Your task to perform on an android device: Add macbook air to the cart on ebay.com Image 0: 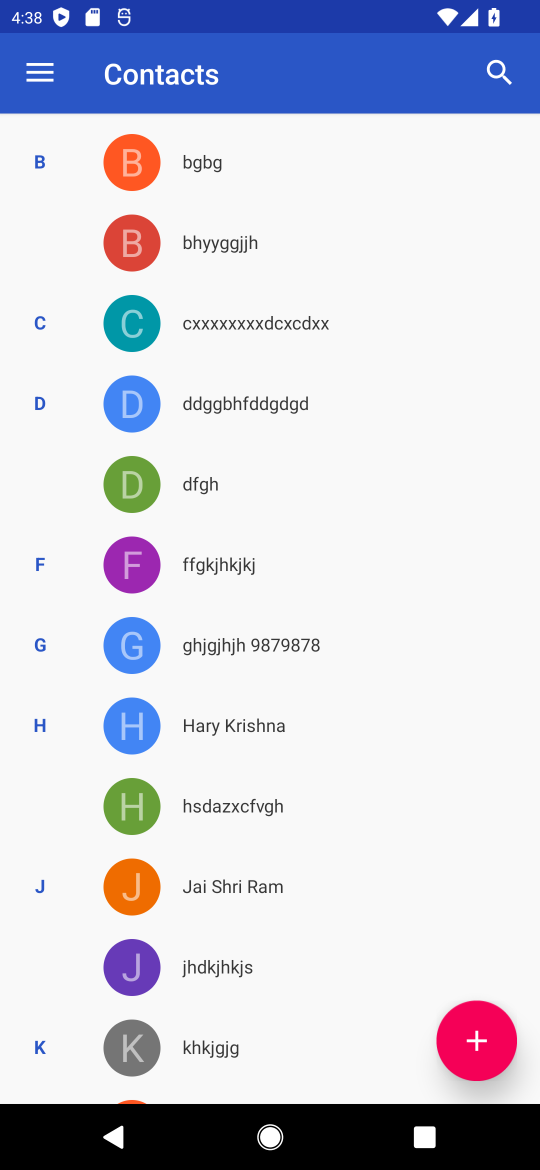
Step 0: press home button
Your task to perform on an android device: Add macbook air to the cart on ebay.com Image 1: 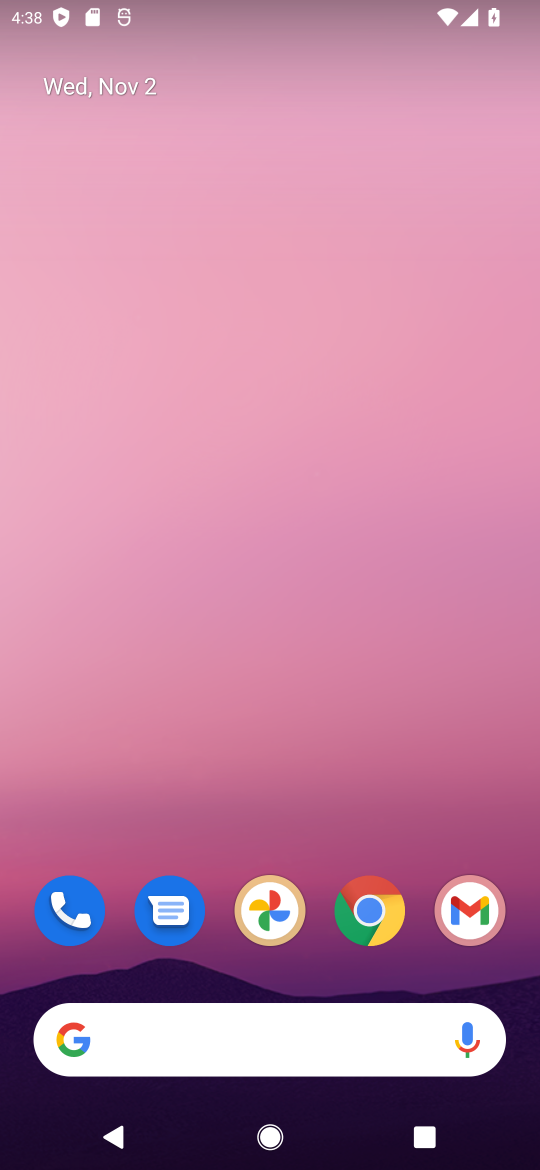
Step 1: click (374, 925)
Your task to perform on an android device: Add macbook air to the cart on ebay.com Image 2: 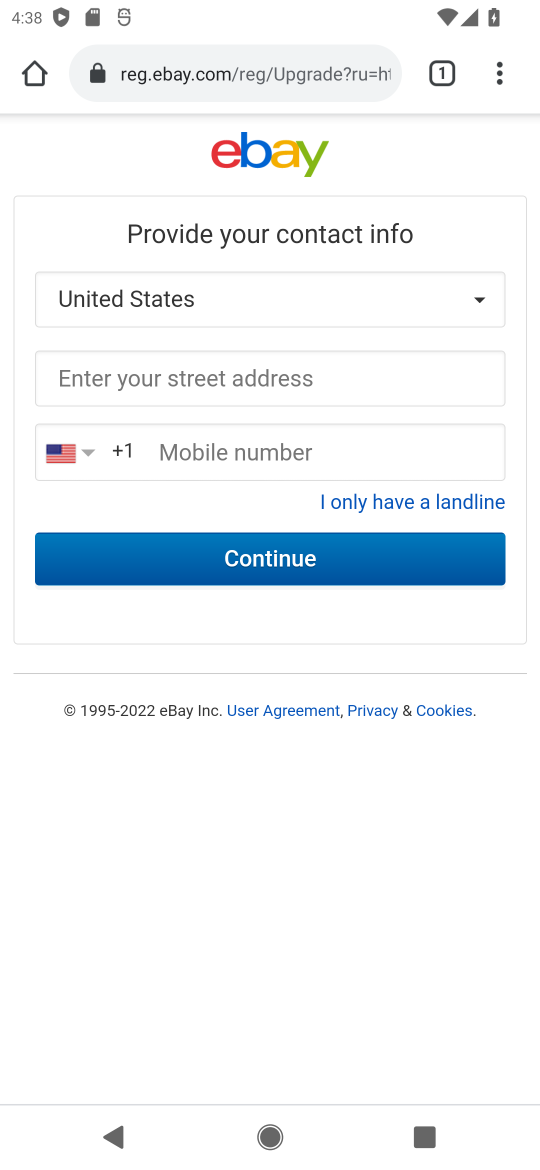
Step 2: click (142, 70)
Your task to perform on an android device: Add macbook air to the cart on ebay.com Image 3: 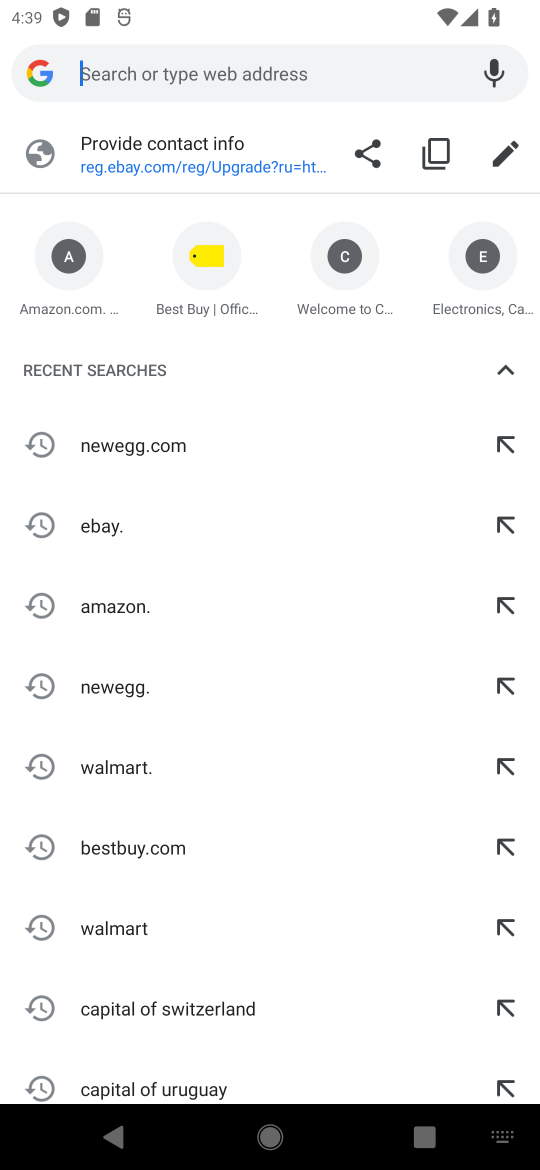
Step 3: type "ebay.com"
Your task to perform on an android device: Add macbook air to the cart on ebay.com Image 4: 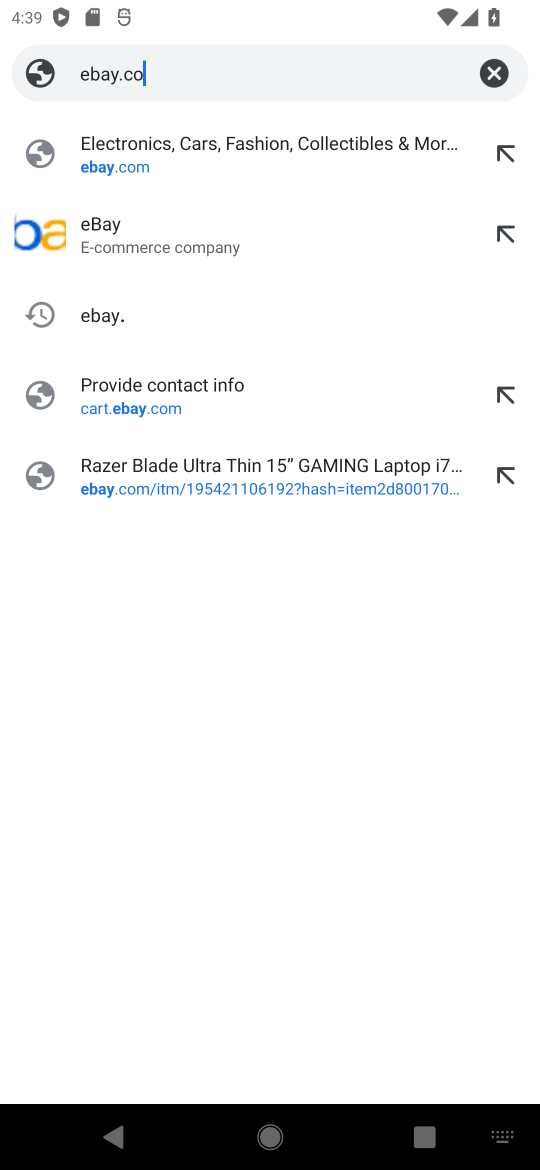
Step 4: type ""
Your task to perform on an android device: Add macbook air to the cart on ebay.com Image 5: 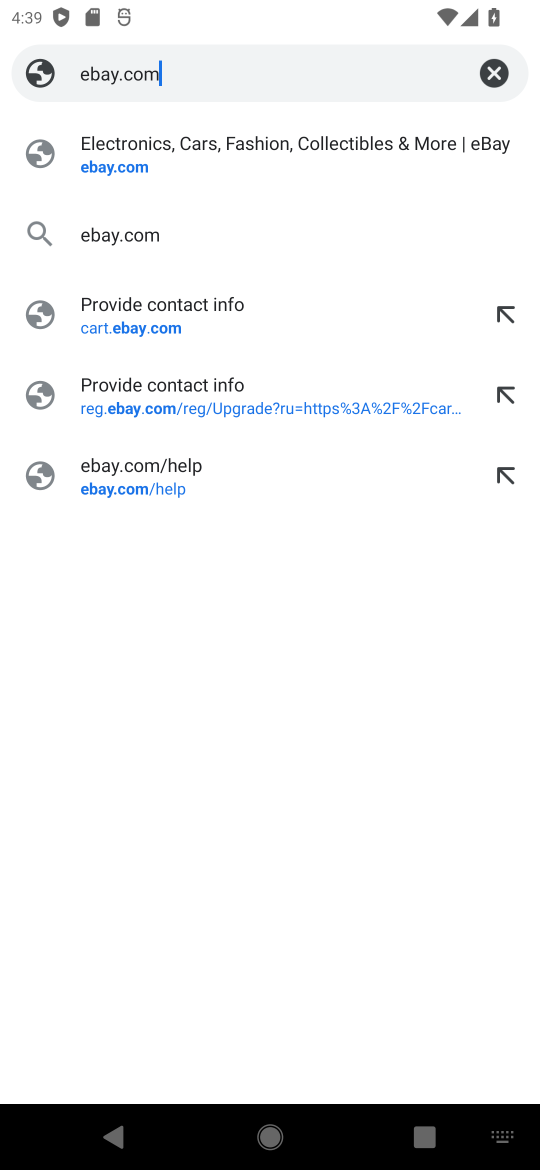
Step 5: click (278, 182)
Your task to perform on an android device: Add macbook air to the cart on ebay.com Image 6: 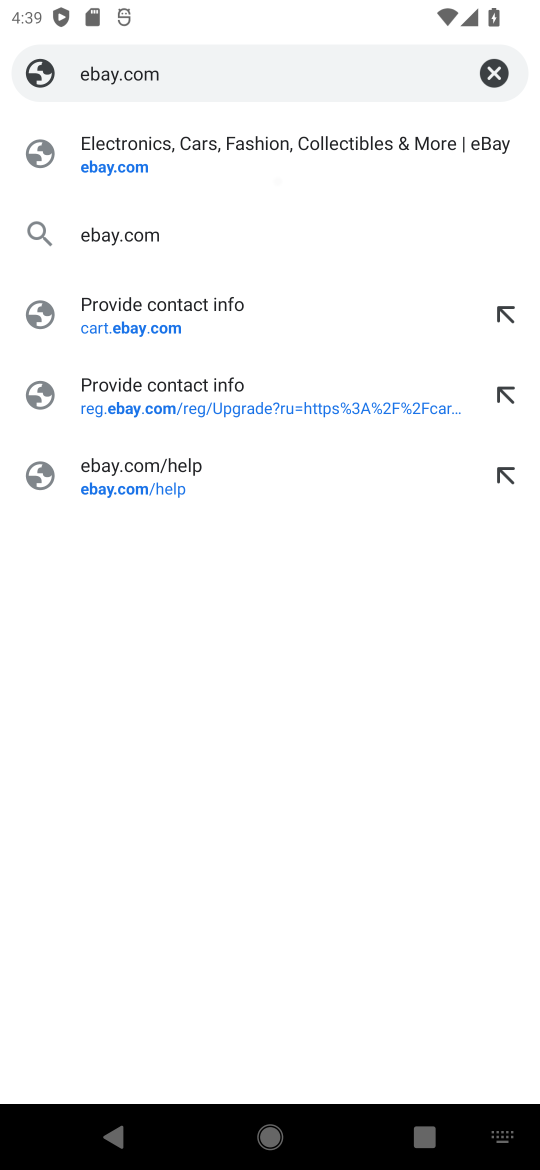
Step 6: click (281, 176)
Your task to perform on an android device: Add macbook air to the cart on ebay.com Image 7: 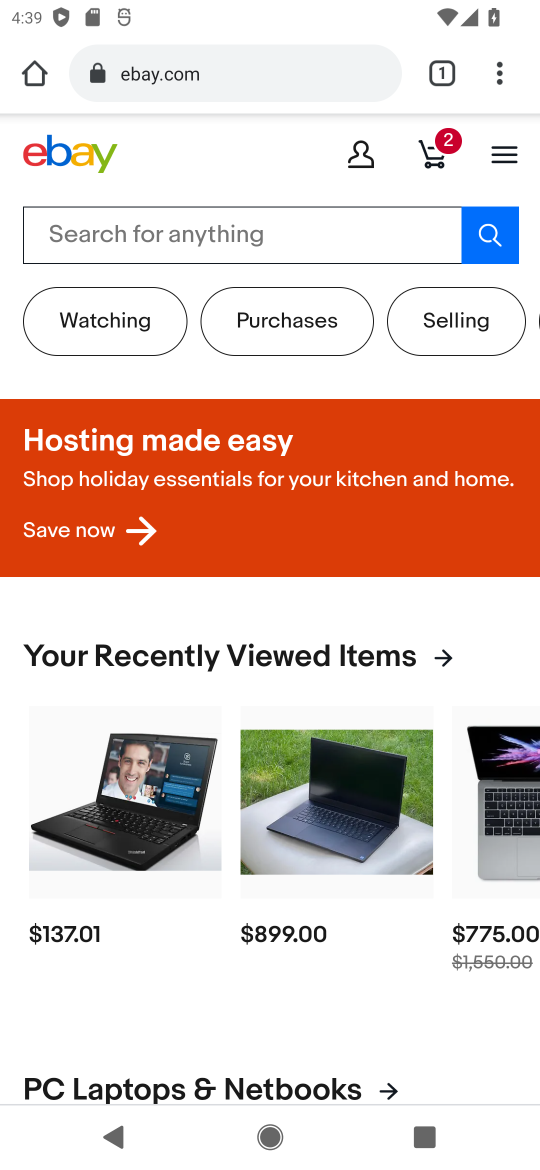
Step 7: click (236, 245)
Your task to perform on an android device: Add macbook air to the cart on ebay.com Image 8: 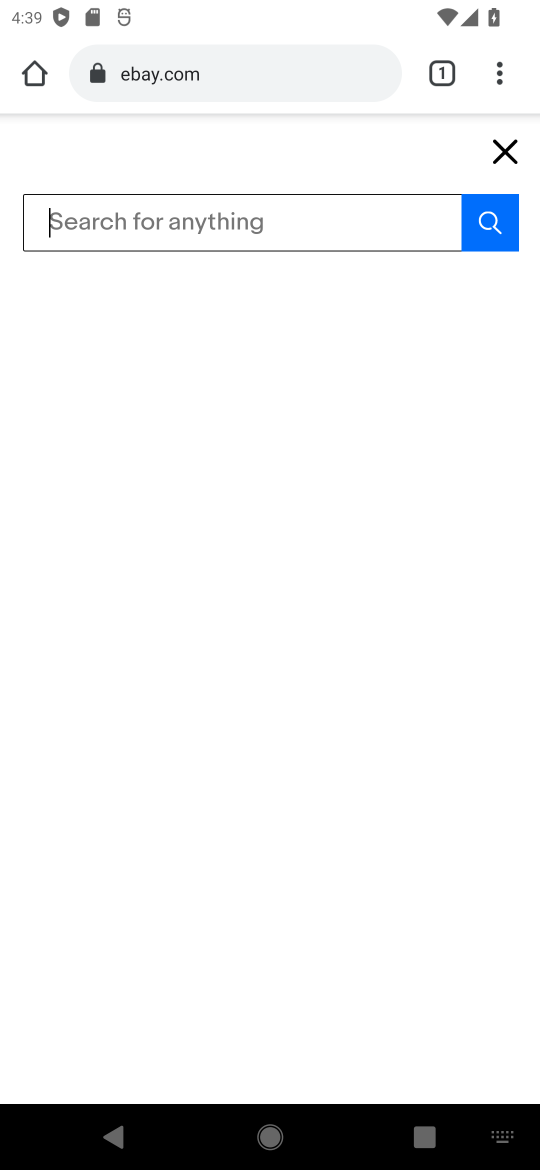
Step 8: type "macbook air"
Your task to perform on an android device: Add macbook air to the cart on ebay.com Image 9: 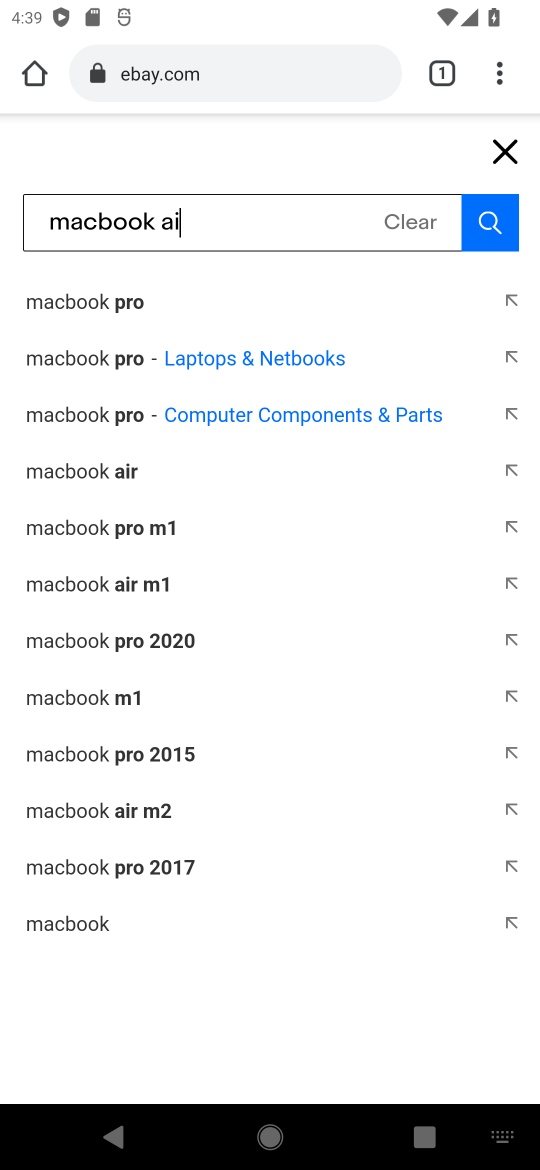
Step 9: type ""
Your task to perform on an android device: Add macbook air to the cart on ebay.com Image 10: 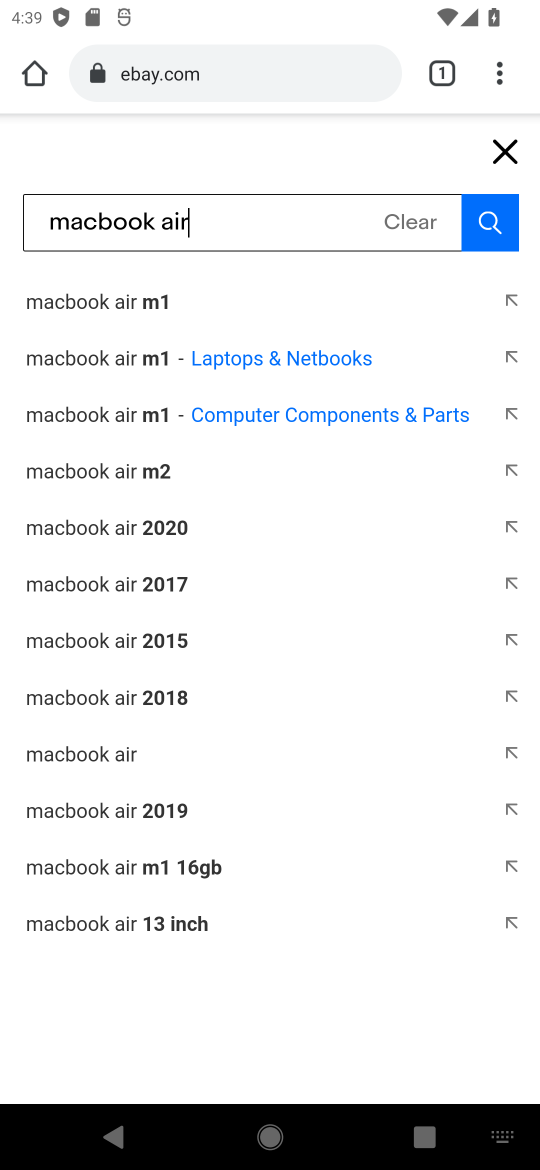
Step 10: click (505, 222)
Your task to perform on an android device: Add macbook air to the cart on ebay.com Image 11: 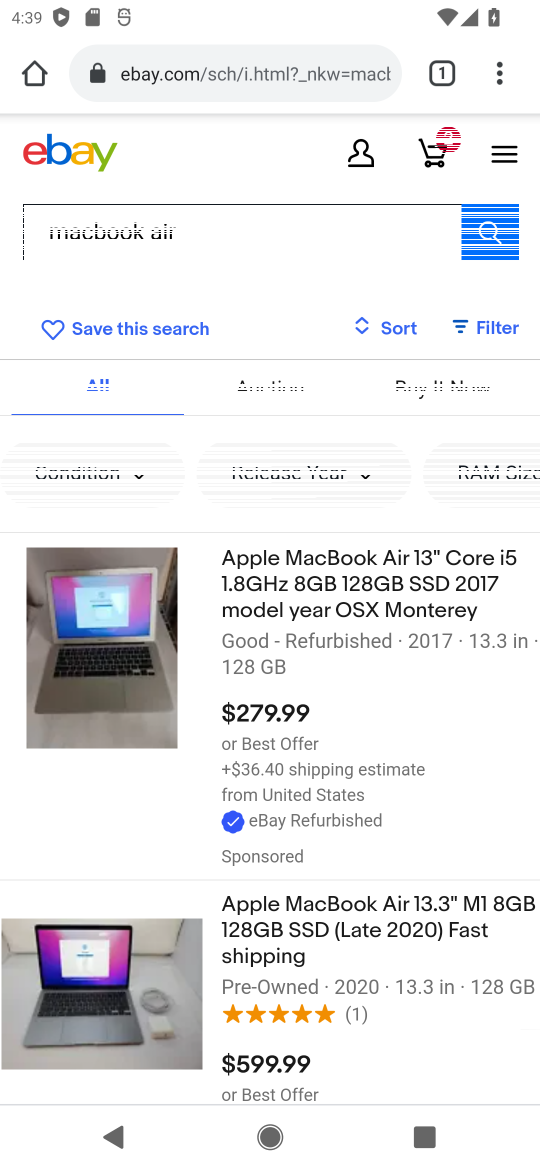
Step 11: click (432, 603)
Your task to perform on an android device: Add macbook air to the cart on ebay.com Image 12: 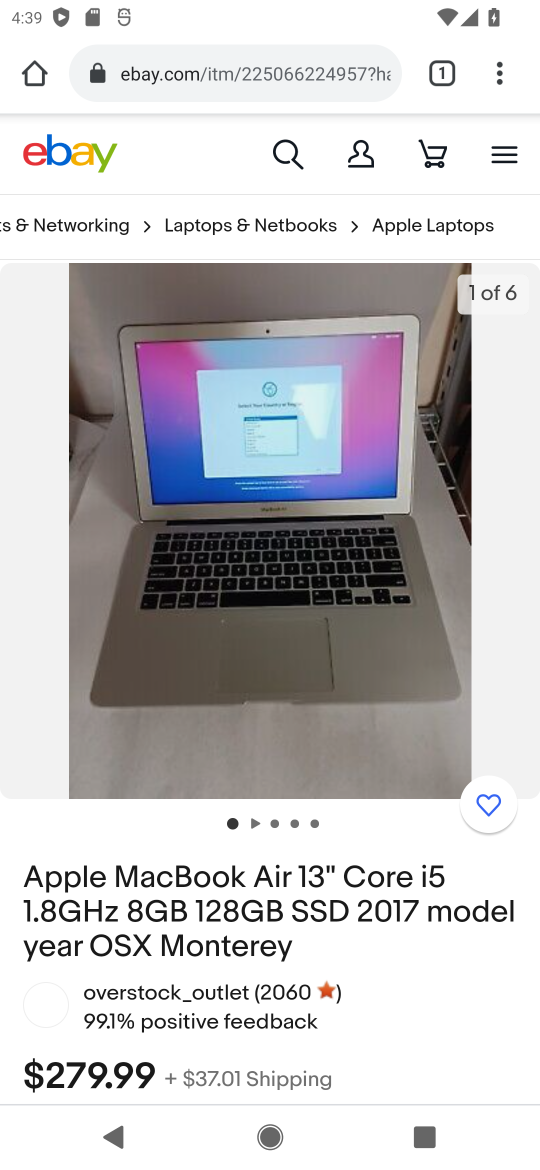
Step 12: drag from (420, 879) to (454, 352)
Your task to perform on an android device: Add macbook air to the cart on ebay.com Image 13: 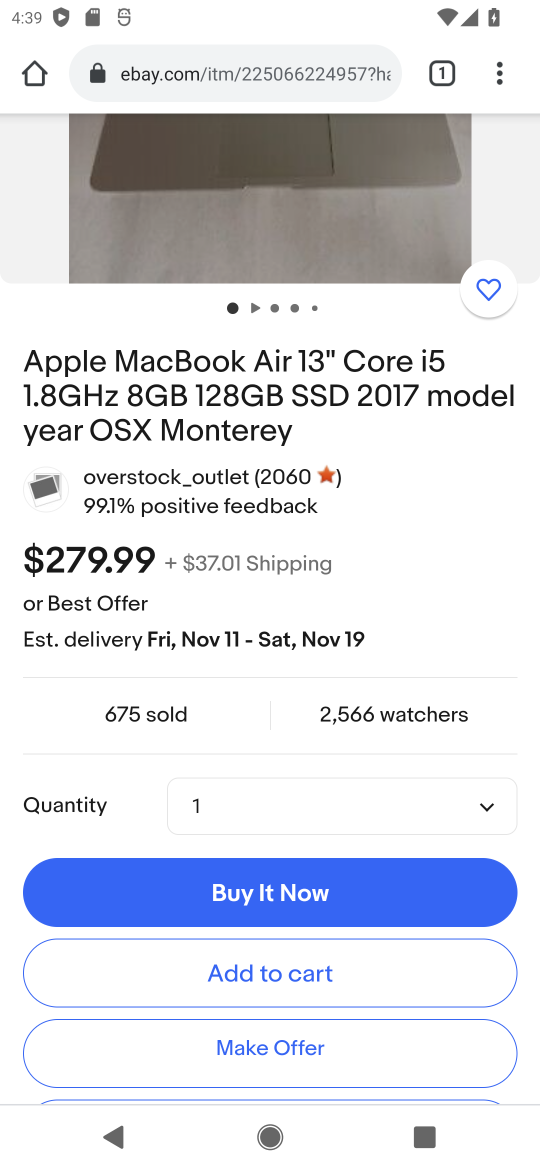
Step 13: click (290, 967)
Your task to perform on an android device: Add macbook air to the cart on ebay.com Image 14: 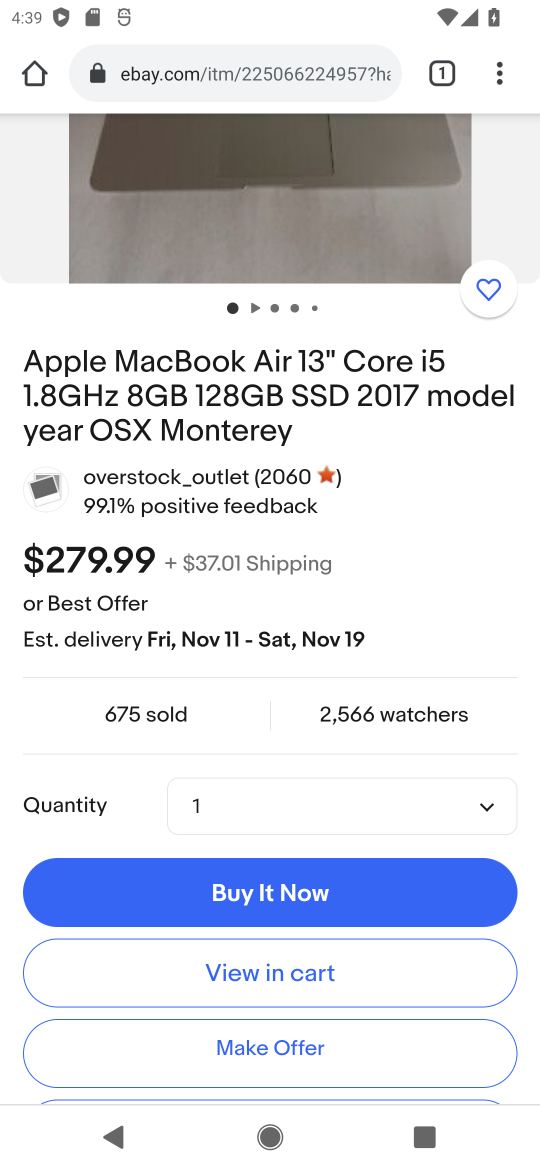
Step 14: click (306, 966)
Your task to perform on an android device: Add macbook air to the cart on ebay.com Image 15: 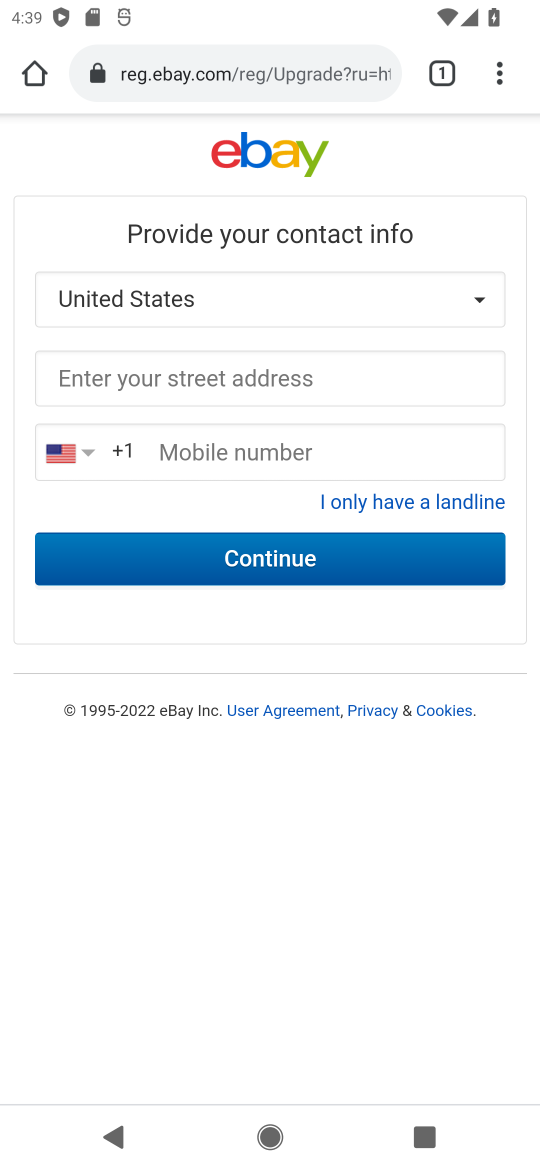
Step 15: click (410, 553)
Your task to perform on an android device: Add macbook air to the cart on ebay.com Image 16: 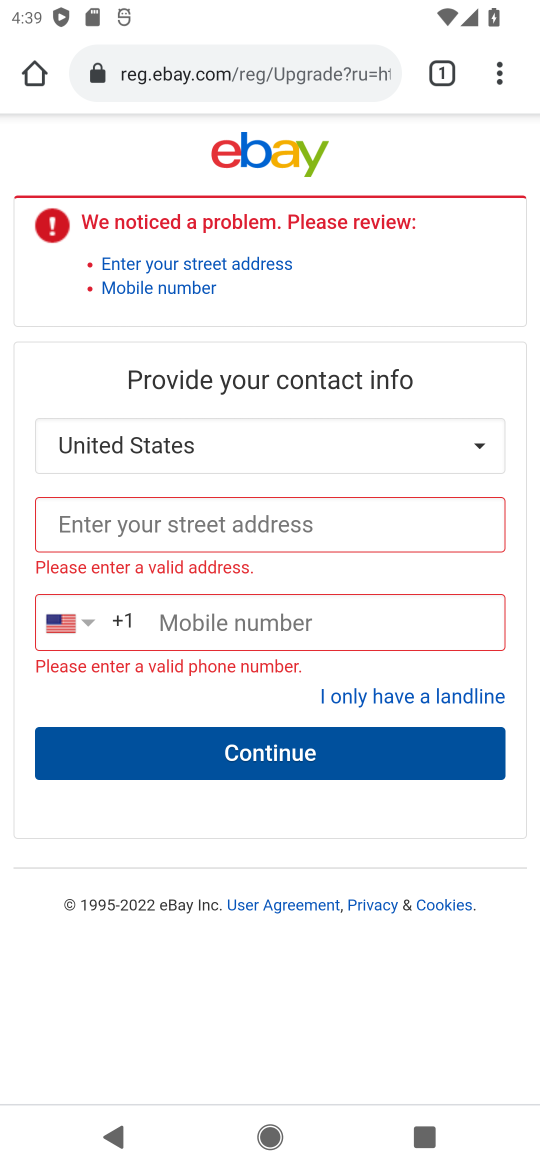
Step 16: press back button
Your task to perform on an android device: Add macbook air to the cart on ebay.com Image 17: 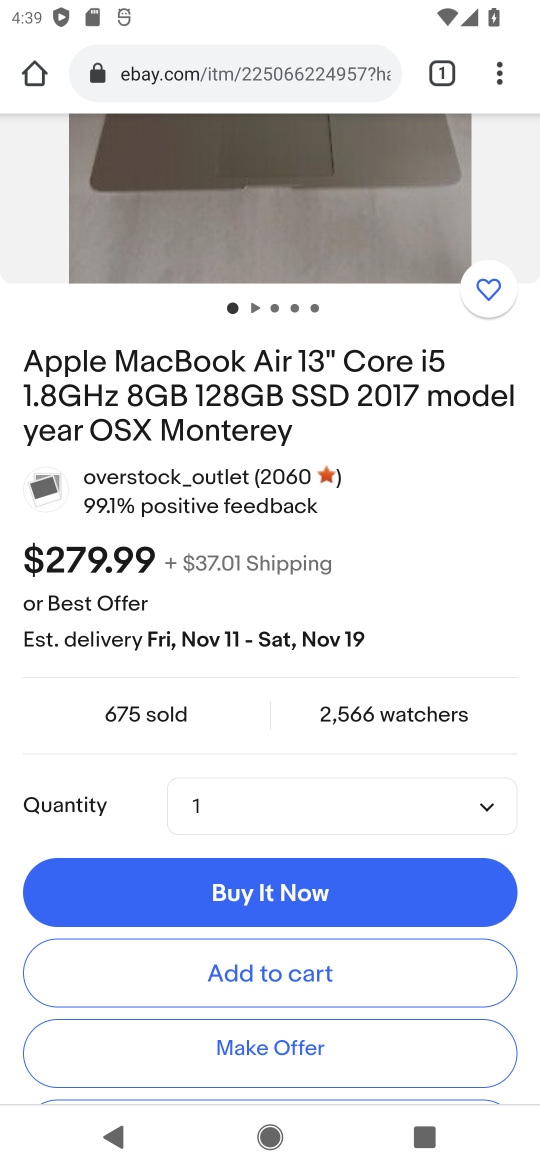
Step 17: drag from (416, 765) to (436, 252)
Your task to perform on an android device: Add macbook air to the cart on ebay.com Image 18: 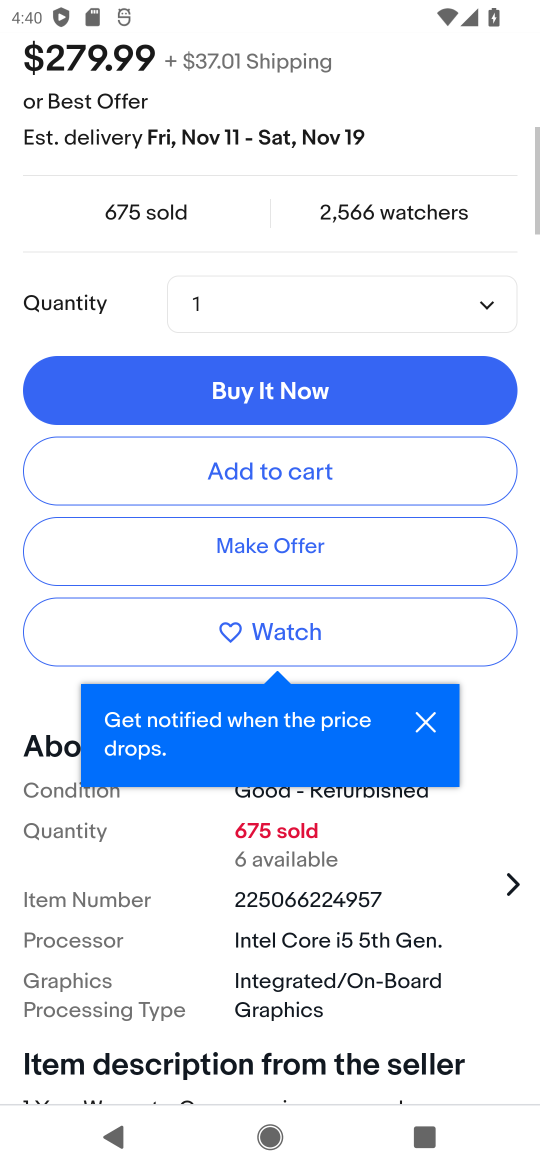
Step 18: drag from (379, 762) to (394, 281)
Your task to perform on an android device: Add macbook air to the cart on ebay.com Image 19: 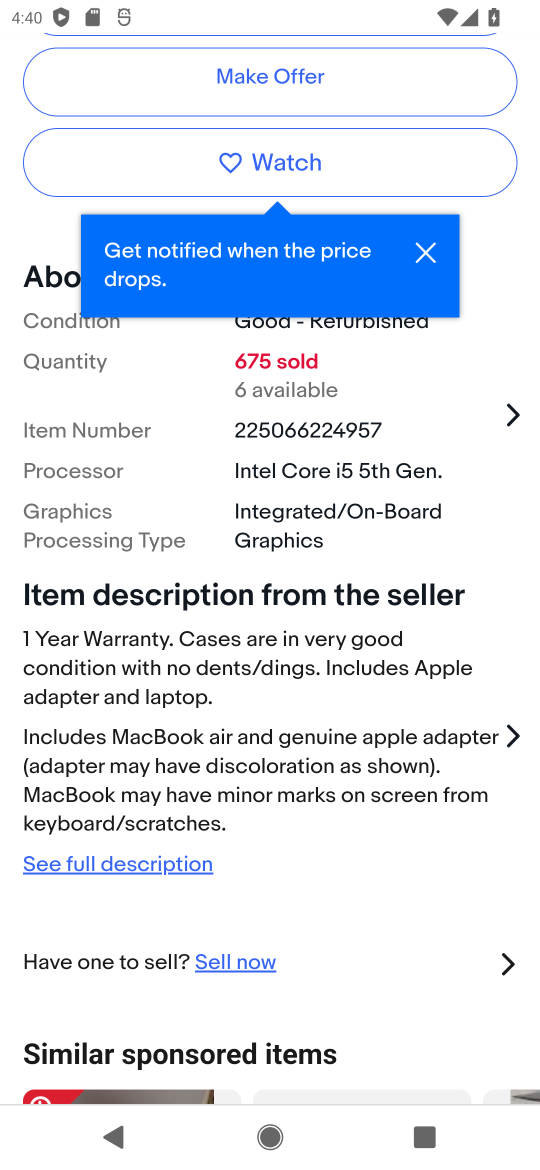
Step 19: click (434, 251)
Your task to perform on an android device: Add macbook air to the cart on ebay.com Image 20: 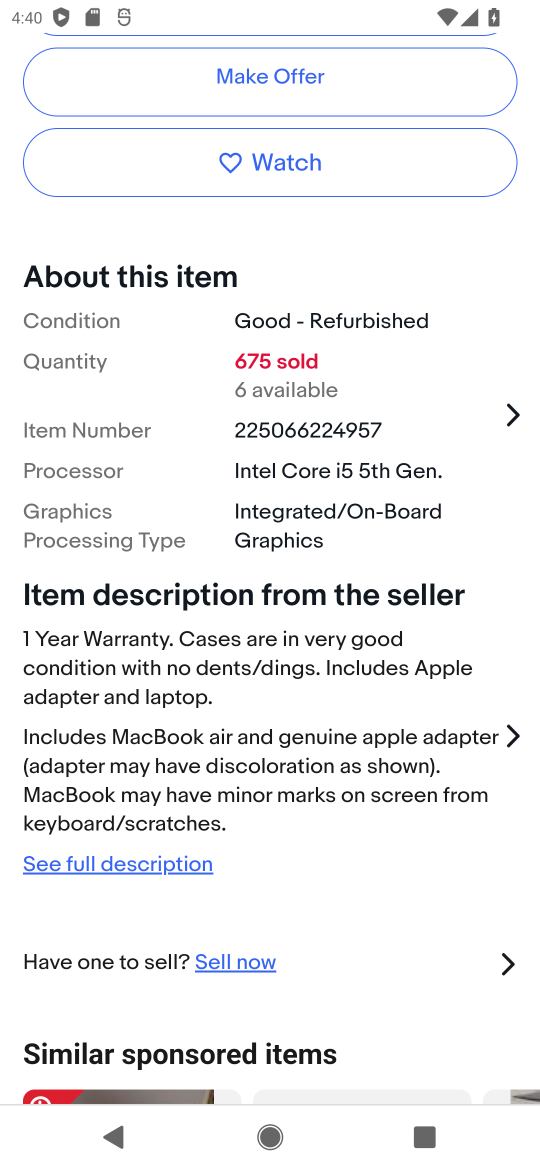
Step 20: drag from (371, 632) to (361, 166)
Your task to perform on an android device: Add macbook air to the cart on ebay.com Image 21: 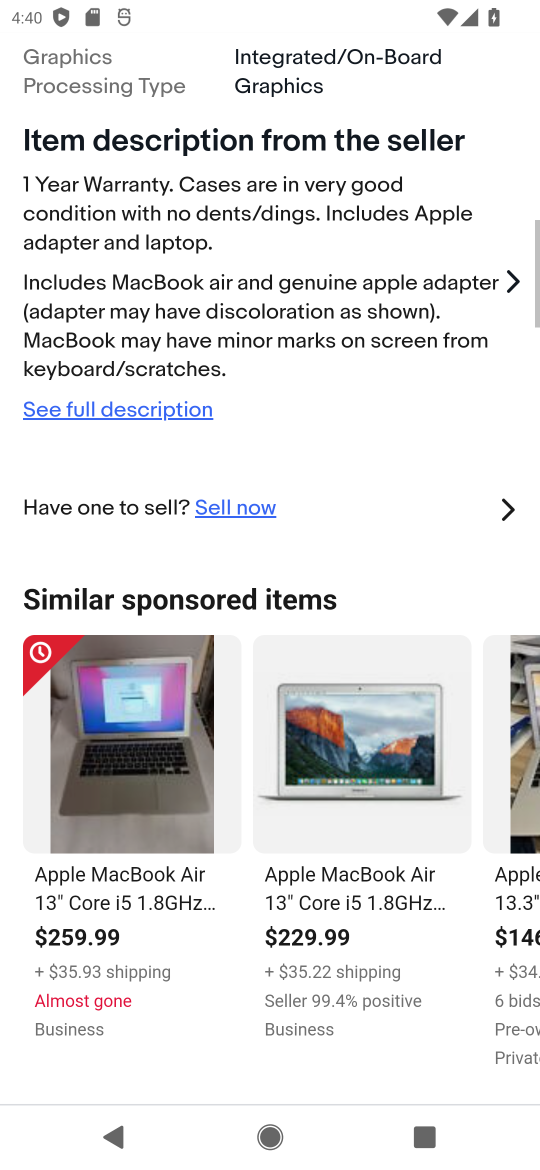
Step 21: drag from (349, 368) to (365, 176)
Your task to perform on an android device: Add macbook air to the cart on ebay.com Image 22: 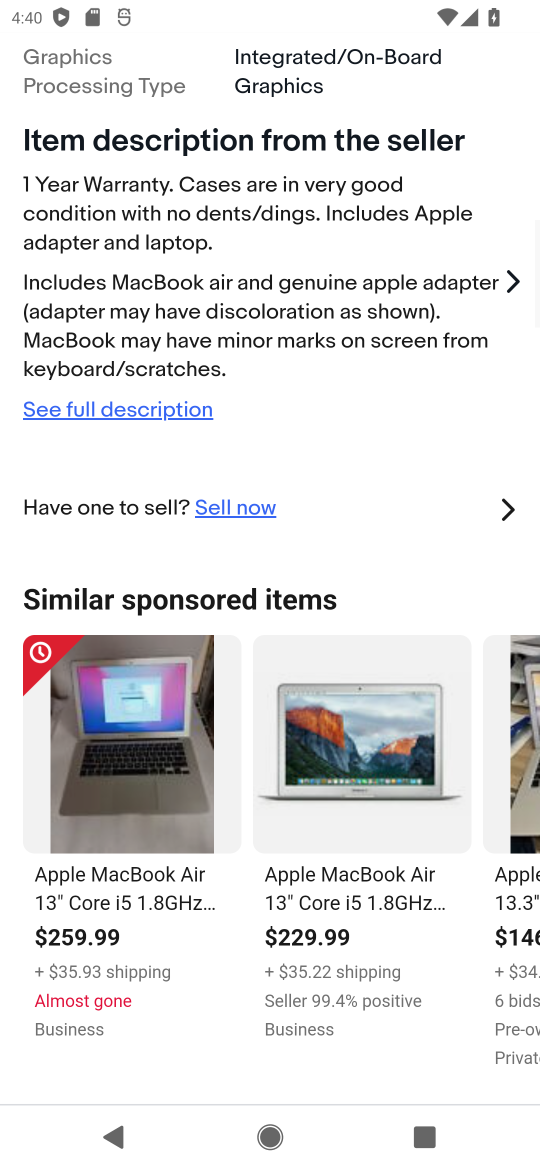
Step 22: drag from (364, 400) to (383, 204)
Your task to perform on an android device: Add macbook air to the cart on ebay.com Image 23: 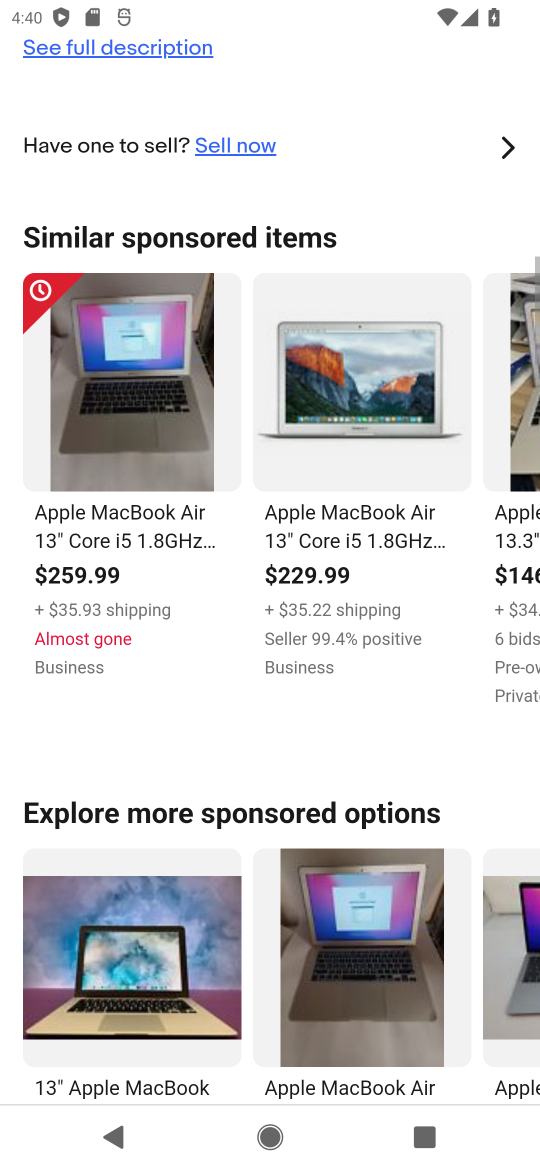
Step 23: click (381, 308)
Your task to perform on an android device: Add macbook air to the cart on ebay.com Image 24: 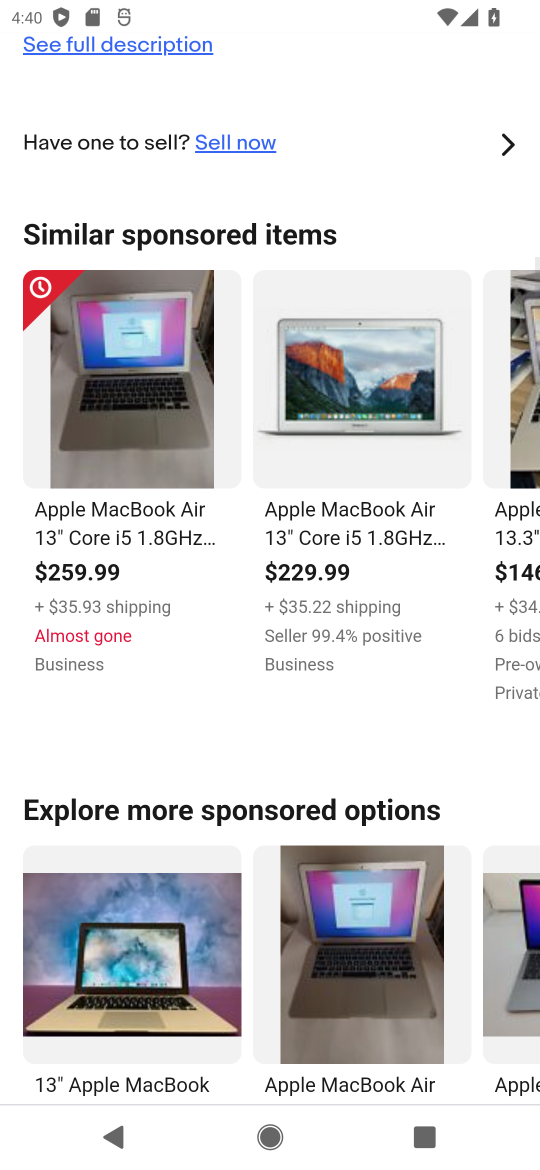
Step 24: click (363, 291)
Your task to perform on an android device: Add macbook air to the cart on ebay.com Image 25: 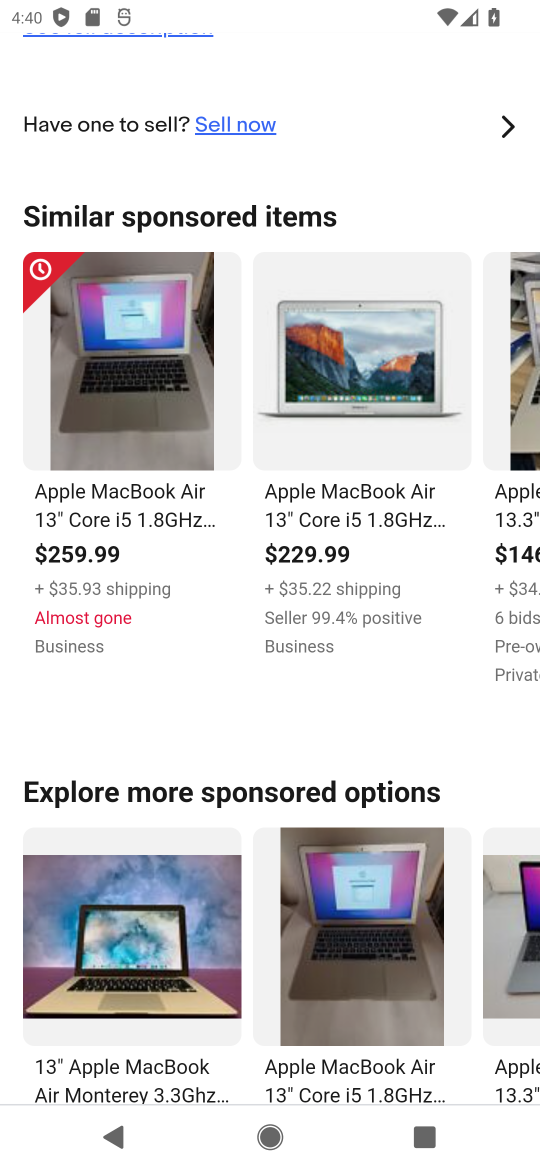
Step 25: drag from (341, 505) to (383, 285)
Your task to perform on an android device: Add macbook air to the cart on ebay.com Image 26: 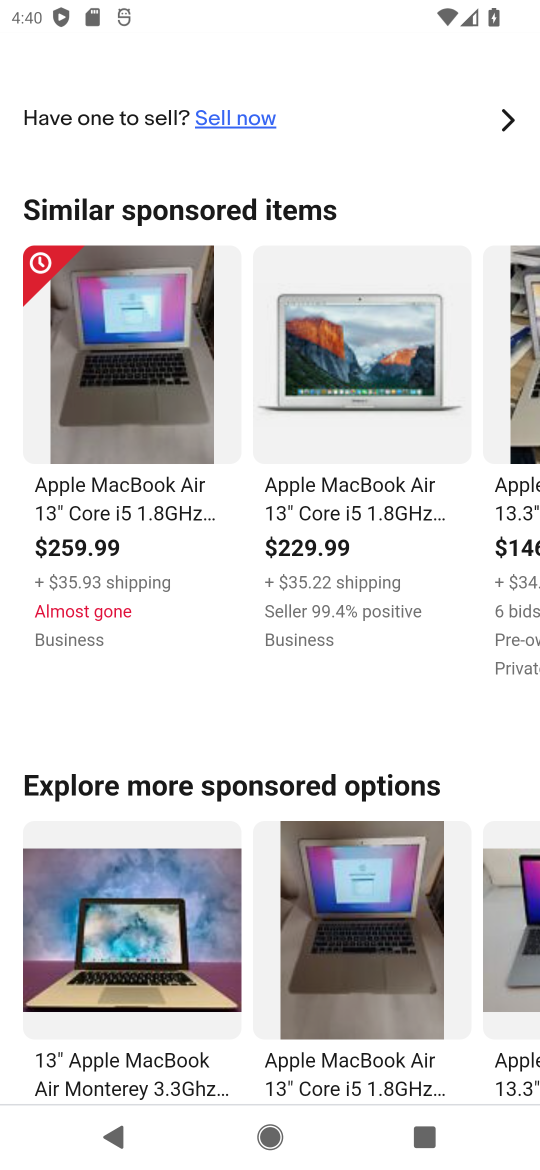
Step 26: drag from (401, 401) to (425, 335)
Your task to perform on an android device: Add macbook air to the cart on ebay.com Image 27: 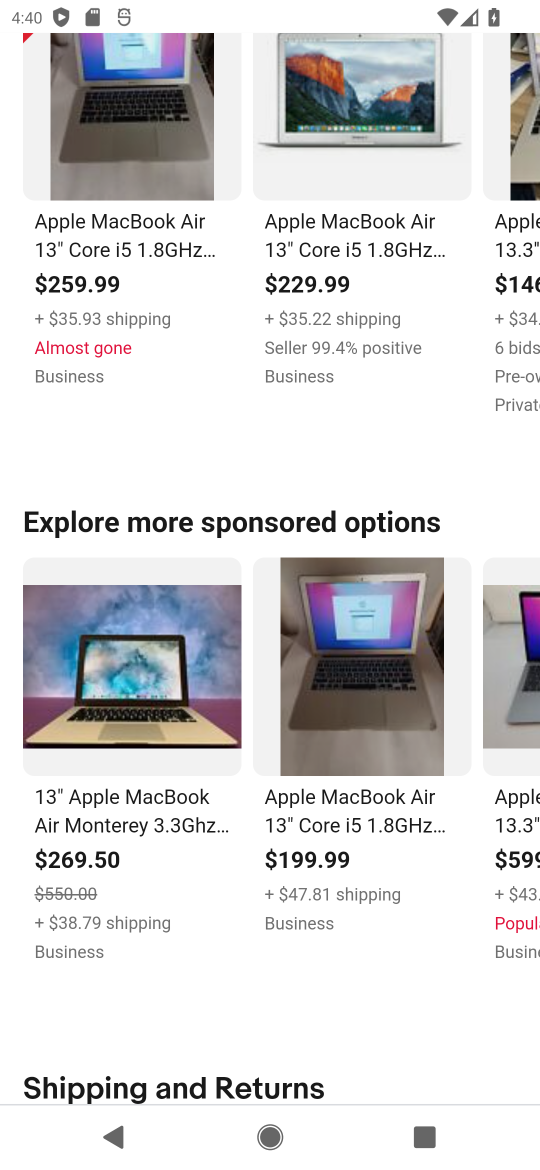
Step 27: drag from (371, 530) to (264, 319)
Your task to perform on an android device: Add macbook air to the cart on ebay.com Image 28: 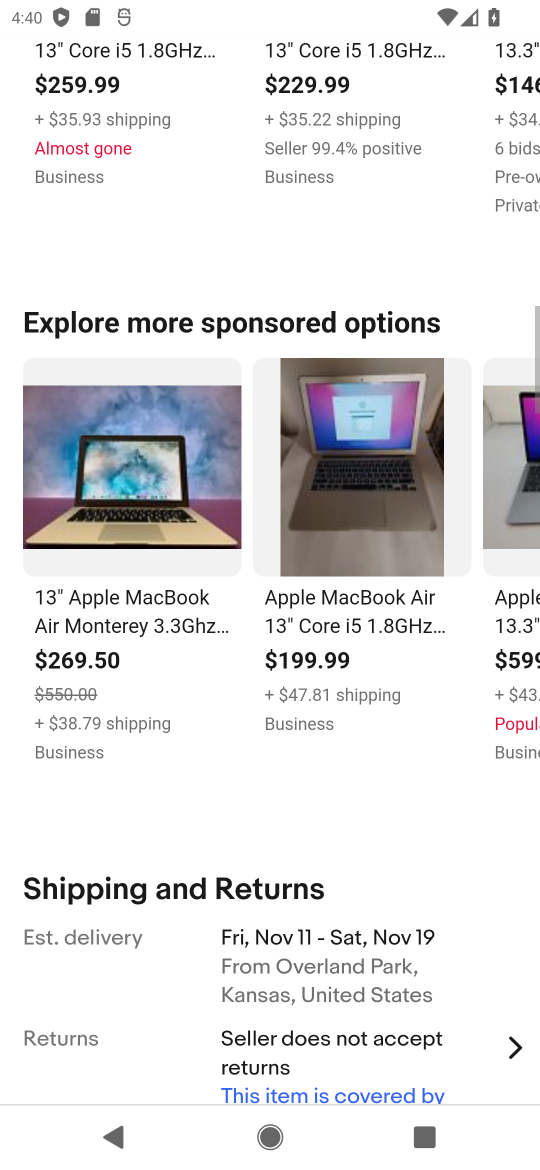
Step 28: drag from (259, 389) to (298, 333)
Your task to perform on an android device: Add macbook air to the cart on ebay.com Image 29: 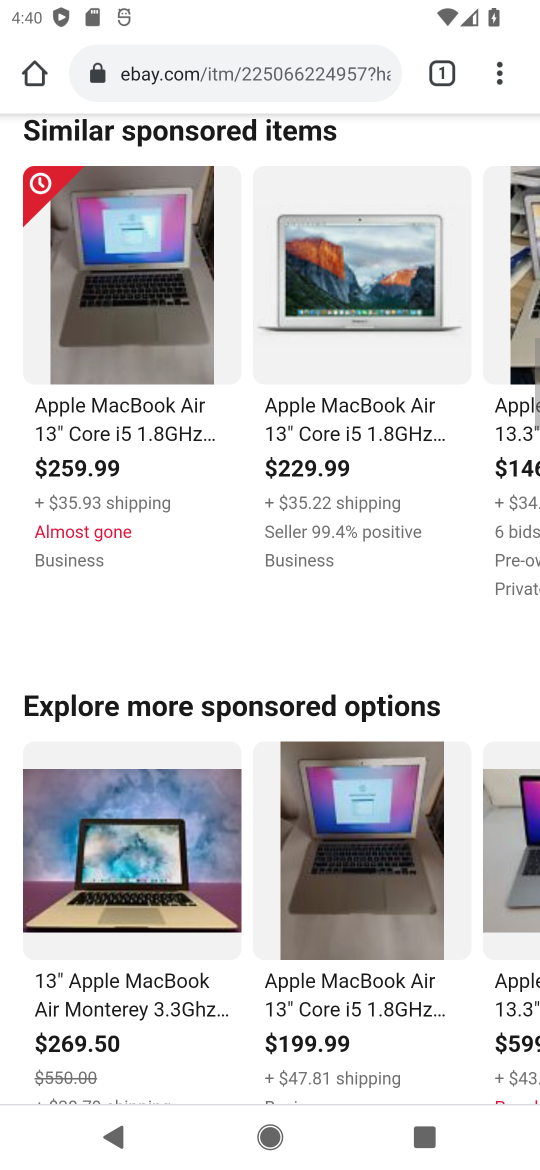
Step 29: drag from (350, 332) to (365, 249)
Your task to perform on an android device: Add macbook air to the cart on ebay.com Image 30: 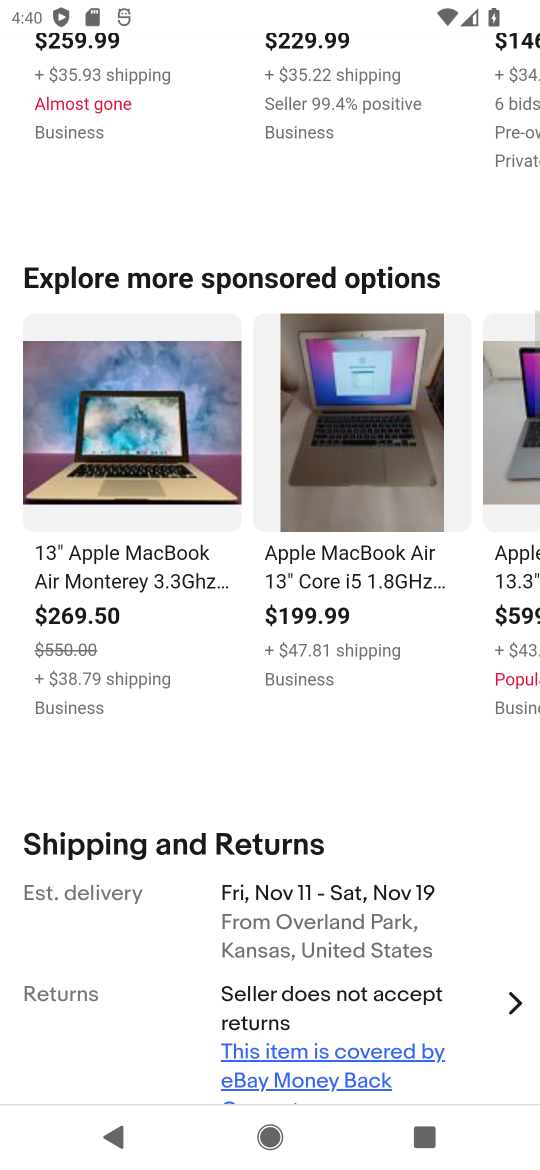
Step 30: click (384, 345)
Your task to perform on an android device: Add macbook air to the cart on ebay.com Image 31: 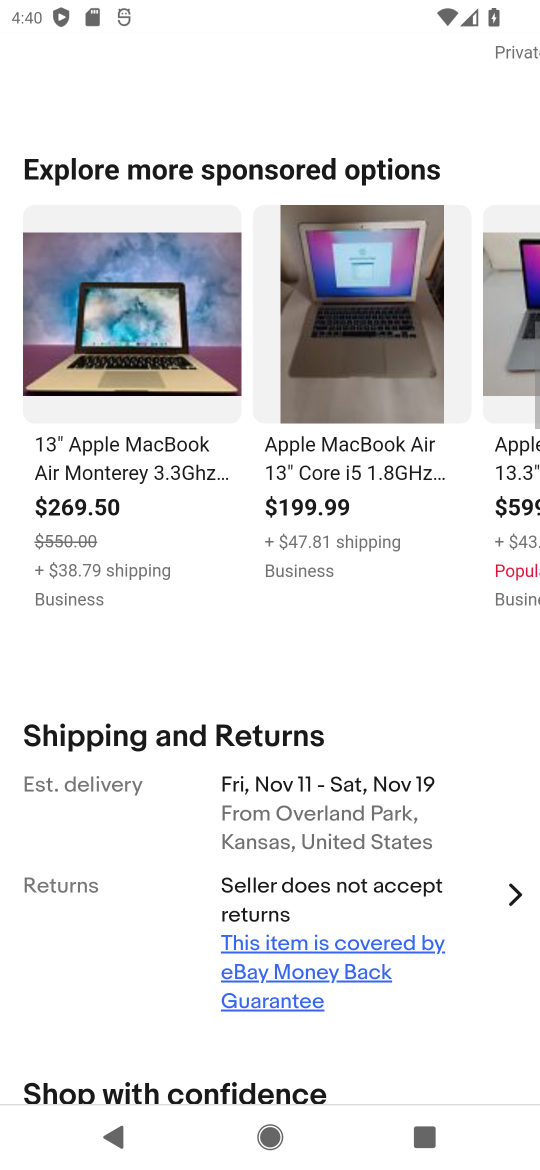
Step 31: press back button
Your task to perform on an android device: Add macbook air to the cart on ebay.com Image 32: 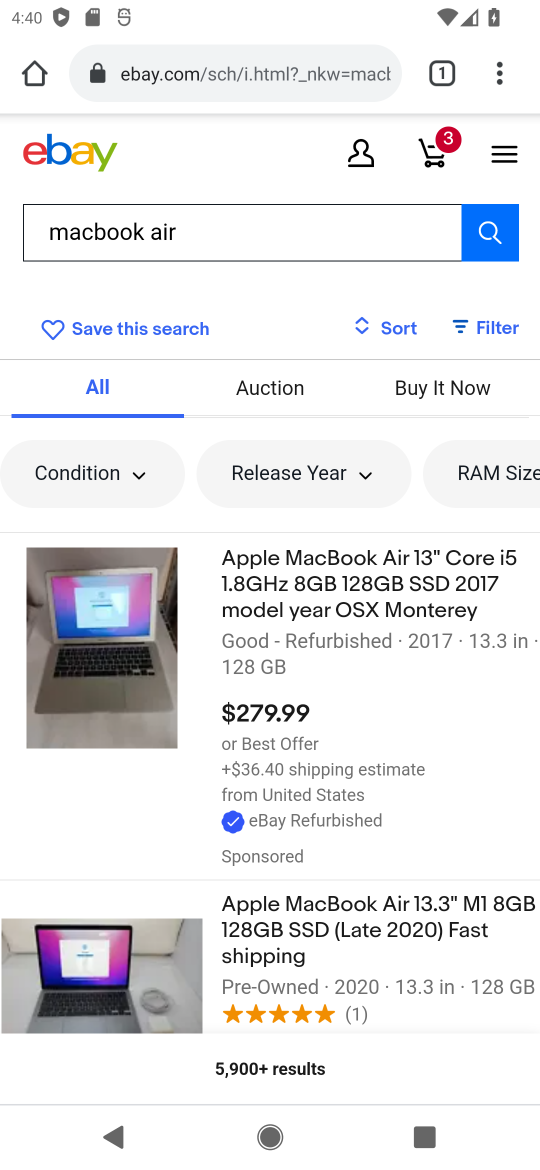
Step 32: drag from (376, 919) to (392, 608)
Your task to perform on an android device: Add macbook air to the cart on ebay.com Image 33: 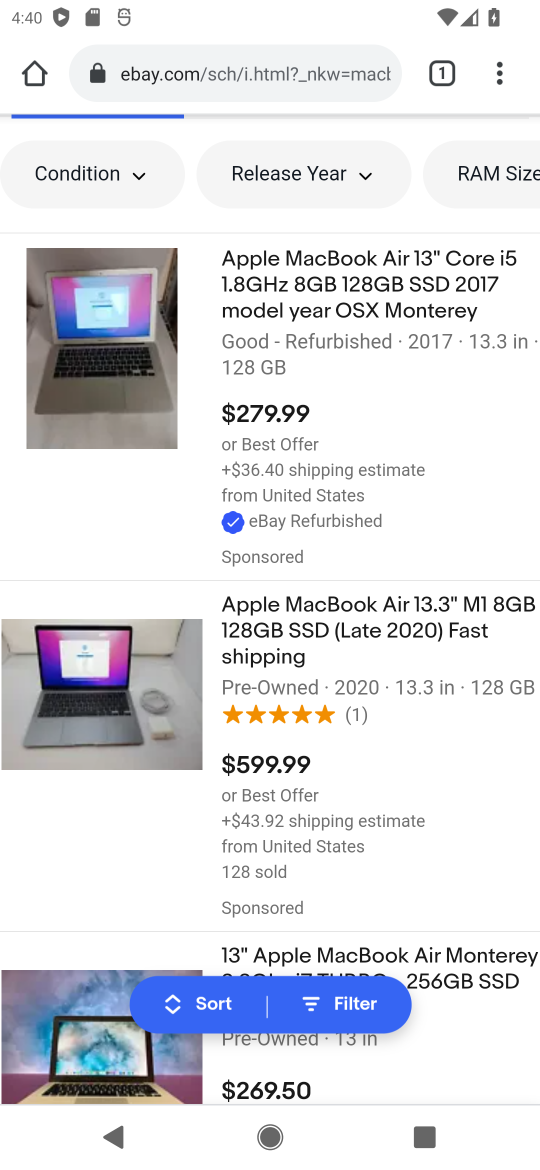
Step 33: drag from (369, 71) to (322, 811)
Your task to perform on an android device: Add macbook air to the cart on ebay.com Image 34: 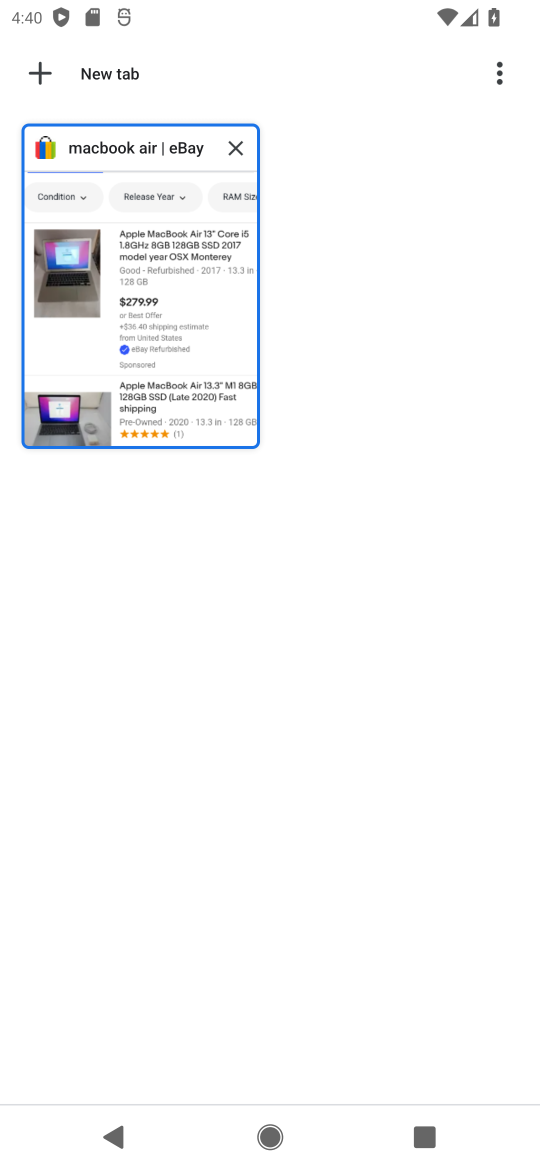
Step 34: click (159, 210)
Your task to perform on an android device: Add macbook air to the cart on ebay.com Image 35: 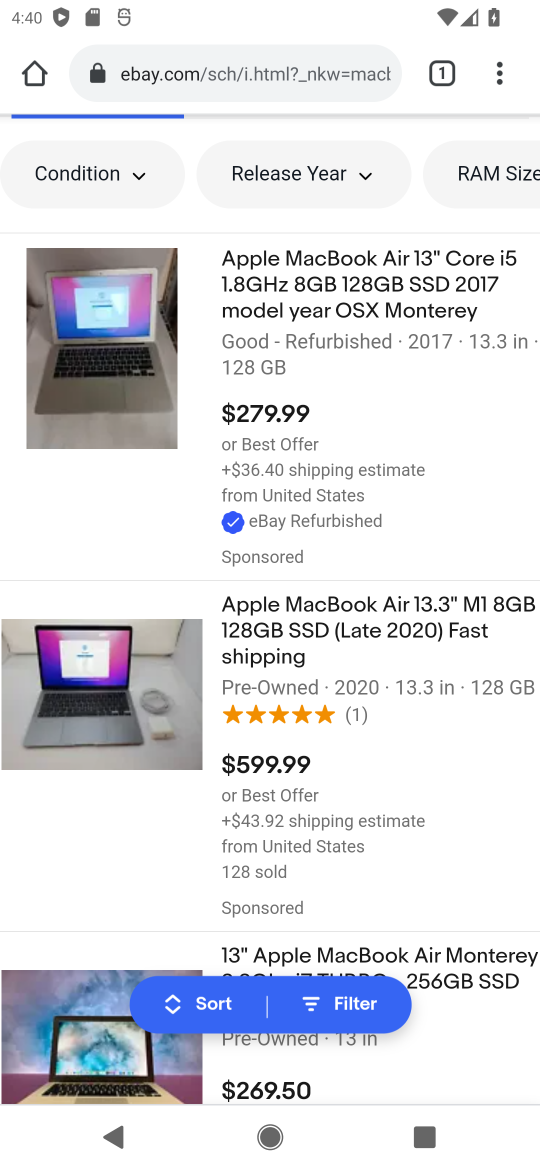
Step 35: drag from (231, 0) to (232, 963)
Your task to perform on an android device: Add macbook air to the cart on ebay.com Image 36: 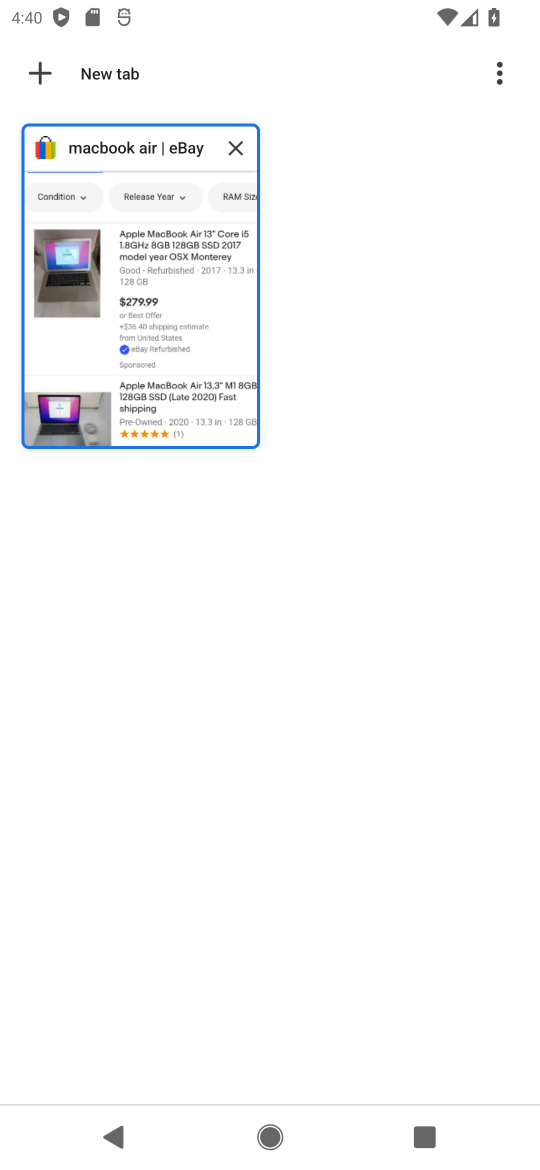
Step 36: click (203, 280)
Your task to perform on an android device: Add macbook air to the cart on ebay.com Image 37: 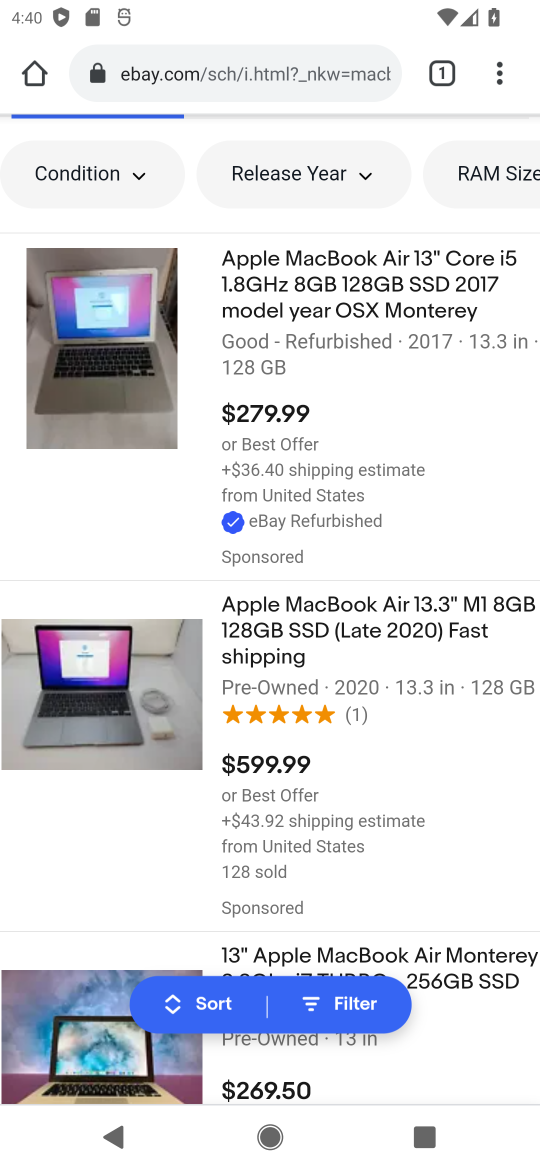
Step 37: task complete